Your task to perform on an android device: open app "Google Chat" (install if not already installed) Image 0: 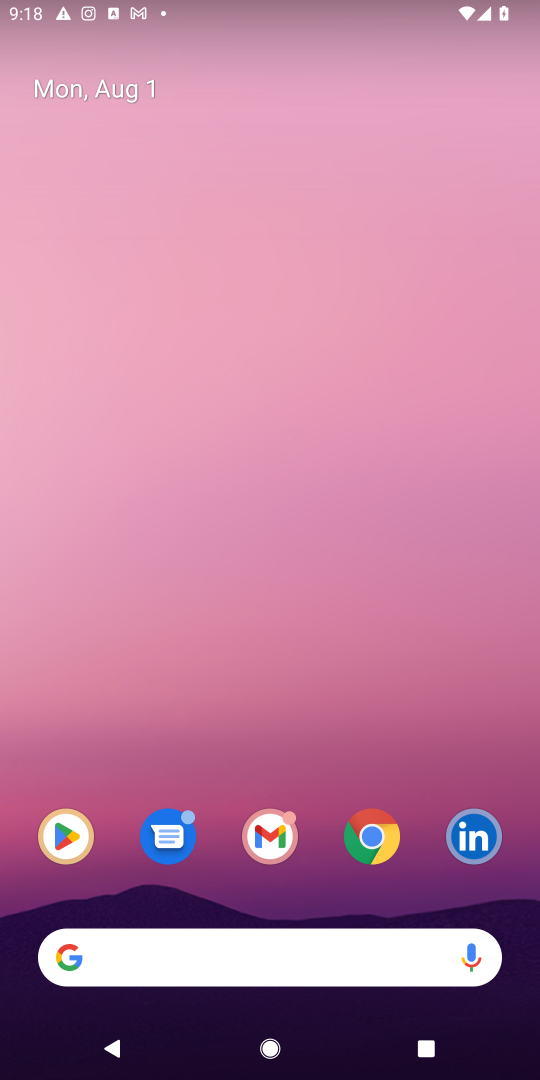
Step 0: press home button
Your task to perform on an android device: open app "Google Chat" (install if not already installed) Image 1: 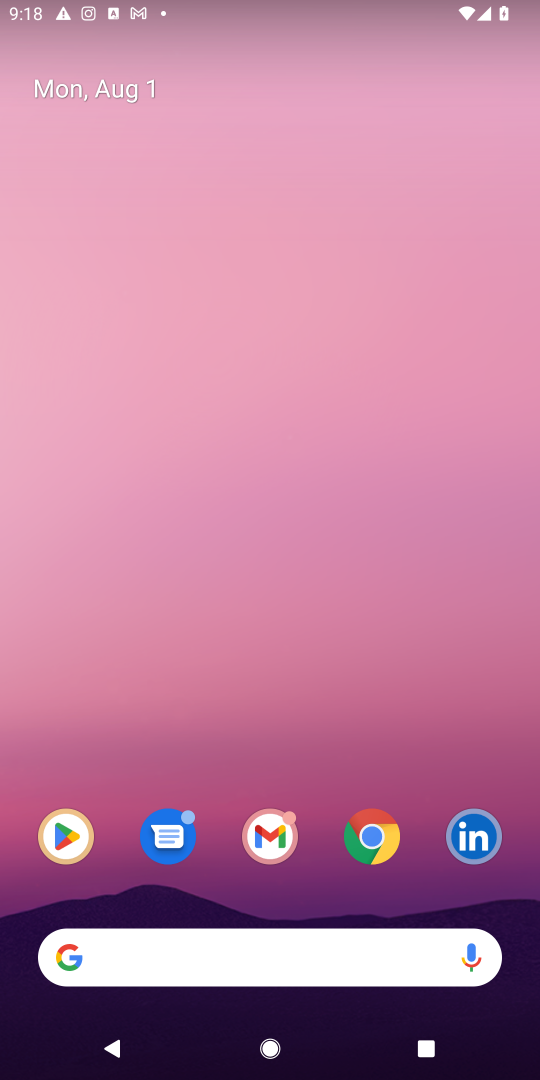
Step 1: click (67, 835)
Your task to perform on an android device: open app "Google Chat" (install if not already installed) Image 2: 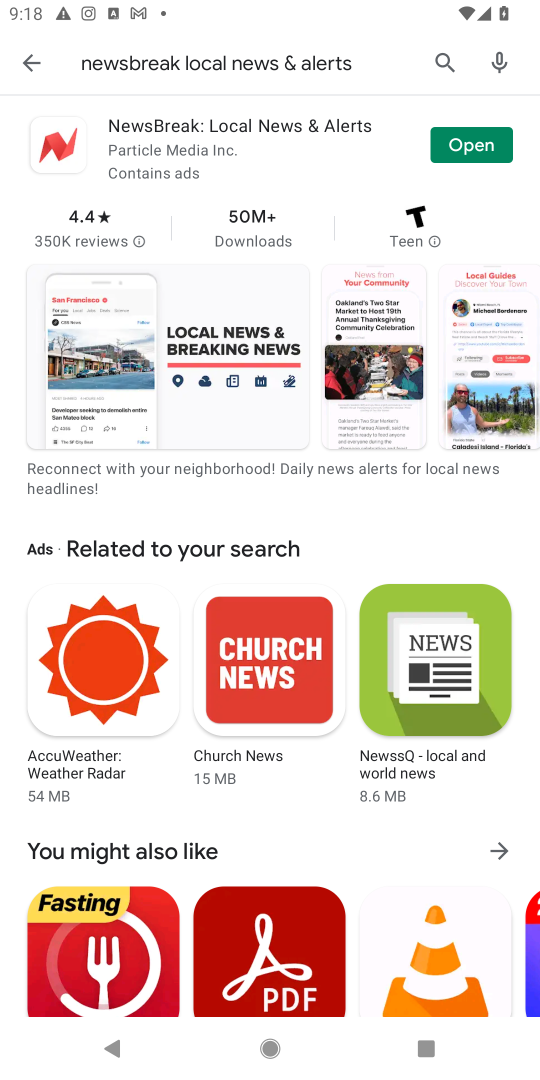
Step 2: click (444, 63)
Your task to perform on an android device: open app "Google Chat" (install if not already installed) Image 3: 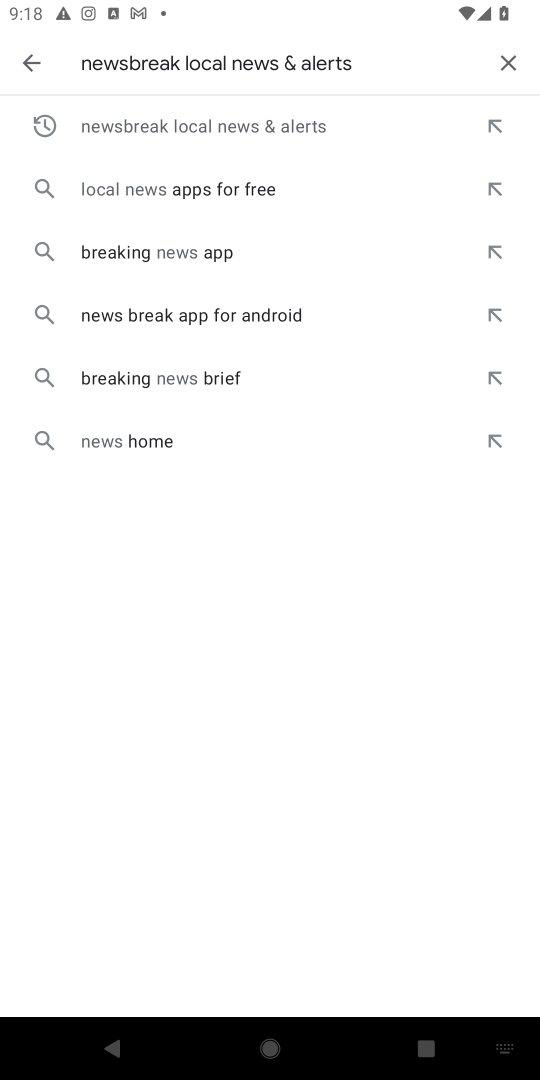
Step 3: click (502, 56)
Your task to perform on an android device: open app "Google Chat" (install if not already installed) Image 4: 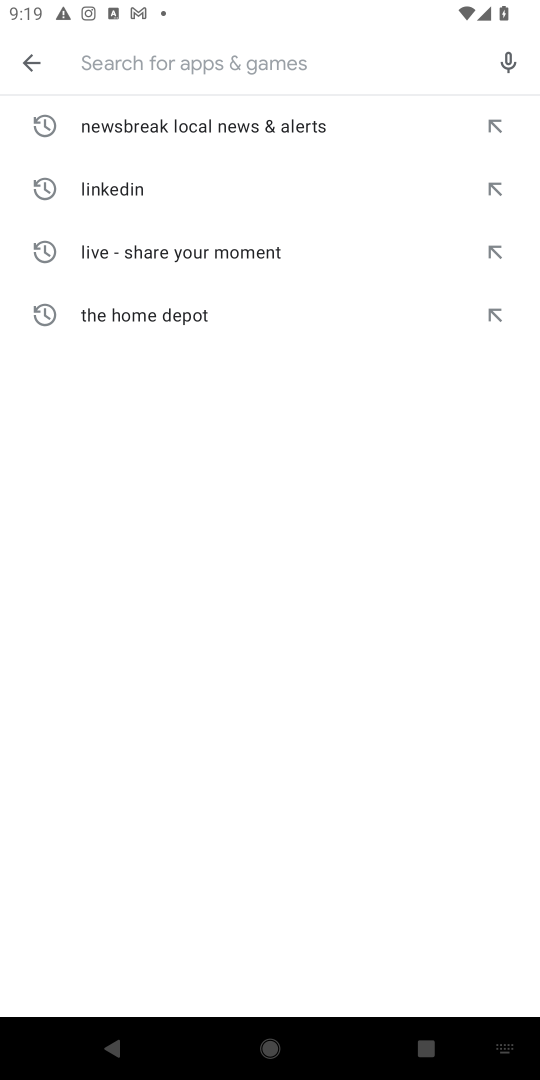
Step 4: type "Google Chat"
Your task to perform on an android device: open app "Google Chat" (install if not already installed) Image 5: 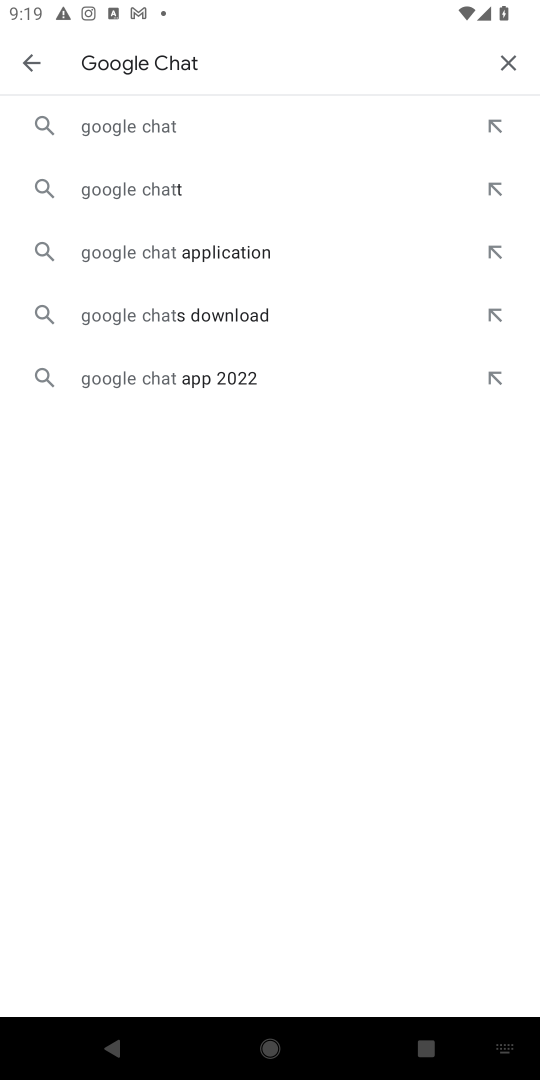
Step 5: click (202, 120)
Your task to perform on an android device: open app "Google Chat" (install if not already installed) Image 6: 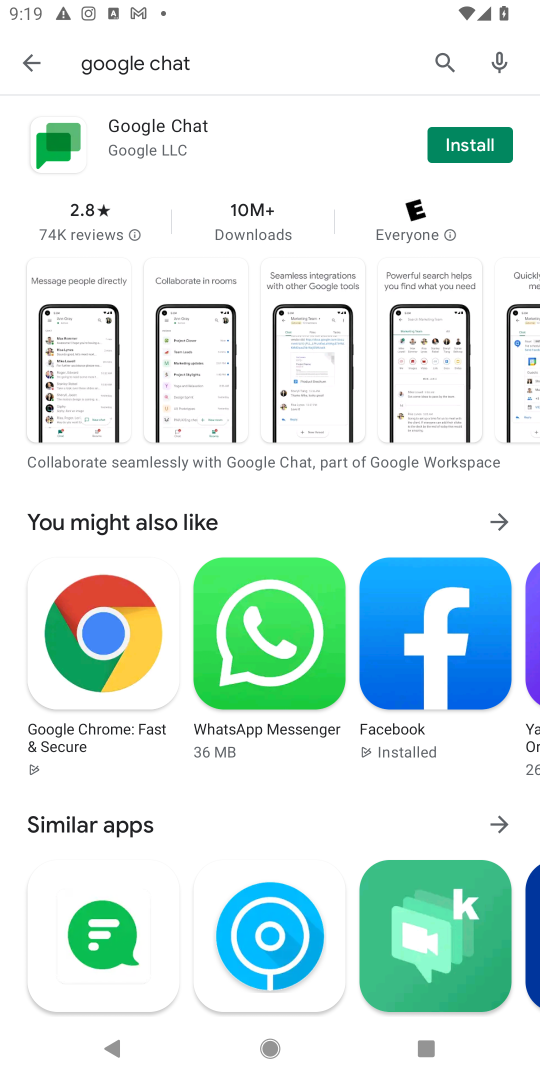
Step 6: click (479, 147)
Your task to perform on an android device: open app "Google Chat" (install if not already installed) Image 7: 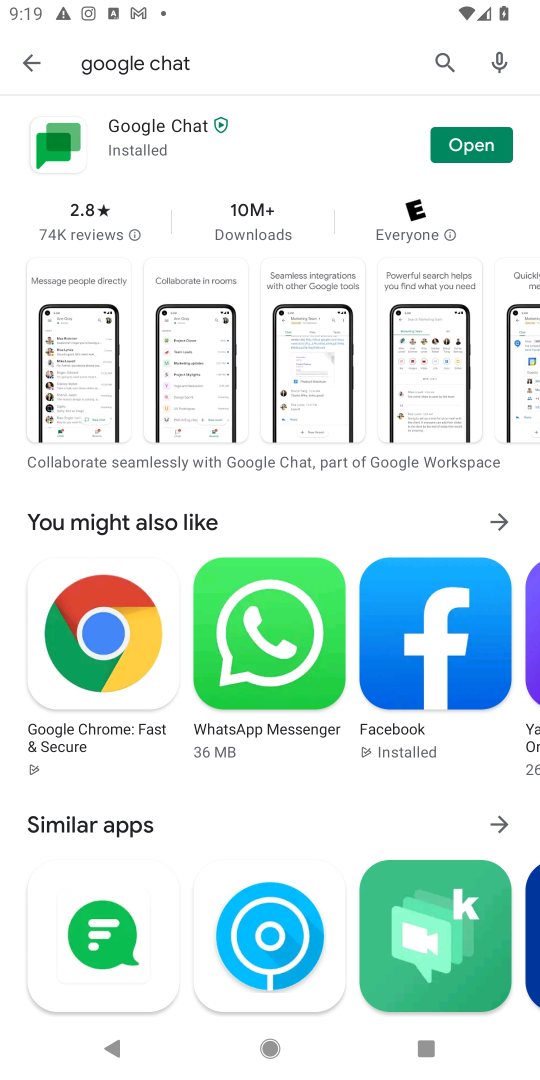
Step 7: task complete